Your task to perform on an android device: move an email to a new category in the gmail app Image 0: 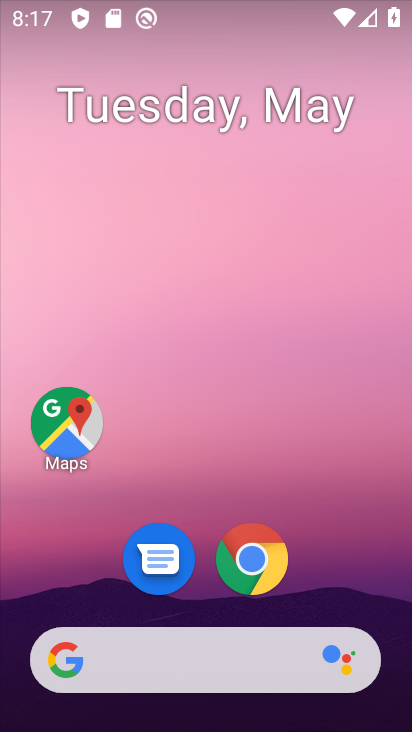
Step 0: drag from (217, 653) to (228, 102)
Your task to perform on an android device: move an email to a new category in the gmail app Image 1: 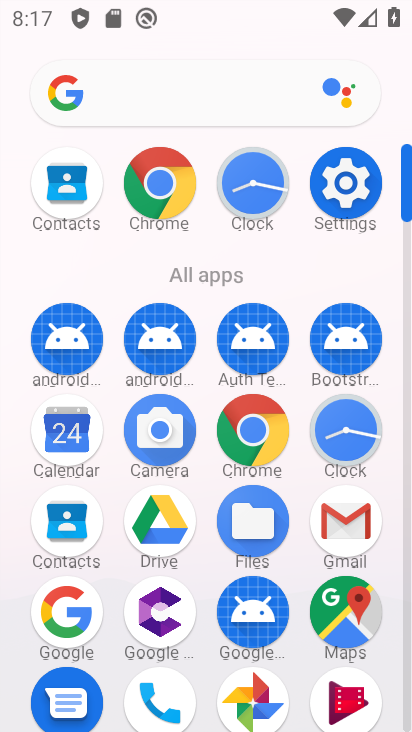
Step 1: click (346, 527)
Your task to perform on an android device: move an email to a new category in the gmail app Image 2: 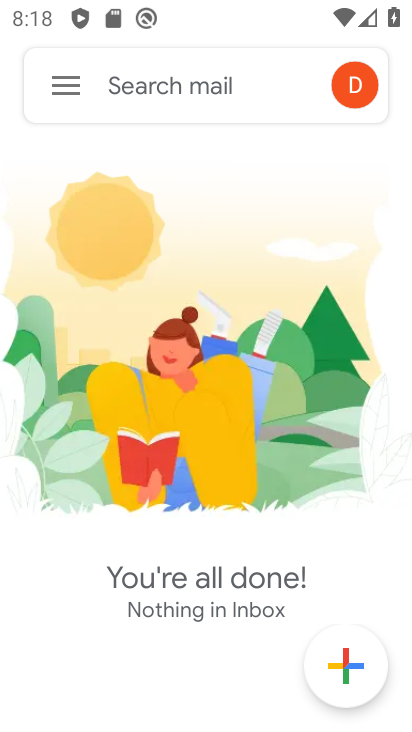
Step 2: click (53, 91)
Your task to perform on an android device: move an email to a new category in the gmail app Image 3: 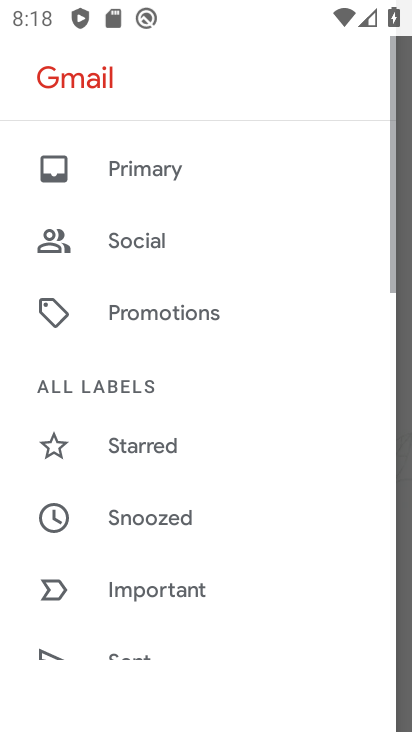
Step 3: drag from (145, 549) to (156, 202)
Your task to perform on an android device: move an email to a new category in the gmail app Image 4: 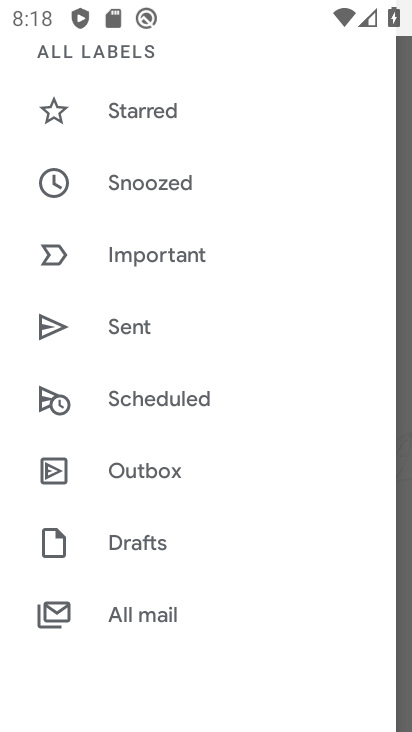
Step 4: click (133, 598)
Your task to perform on an android device: move an email to a new category in the gmail app Image 5: 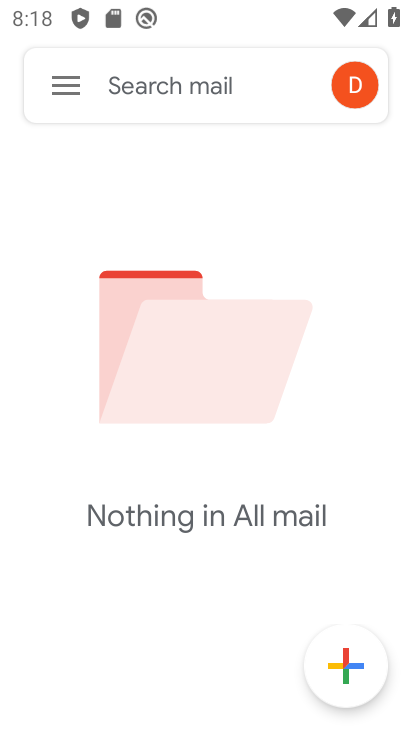
Step 5: task complete